Your task to perform on an android device: Go to Wikipedia Image 0: 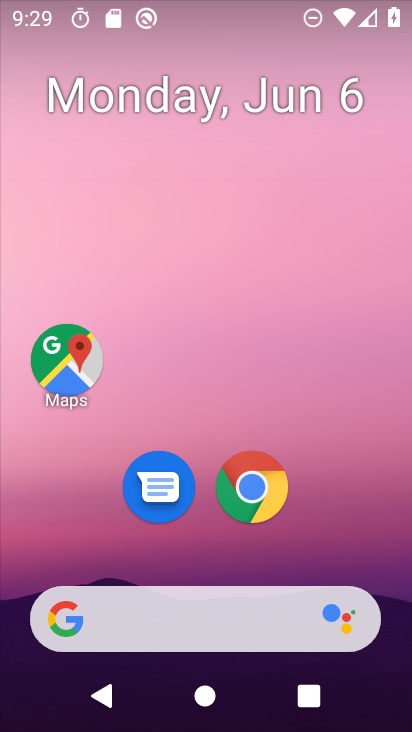
Step 0: drag from (390, 608) to (266, 49)
Your task to perform on an android device: Go to Wikipedia Image 1: 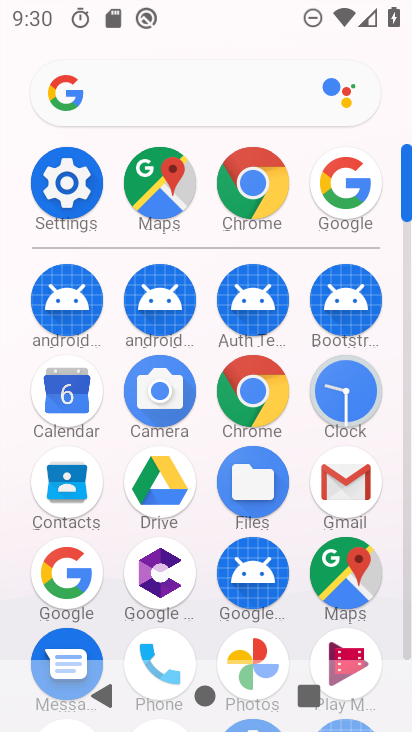
Step 1: click (53, 585)
Your task to perform on an android device: Go to Wikipedia Image 2: 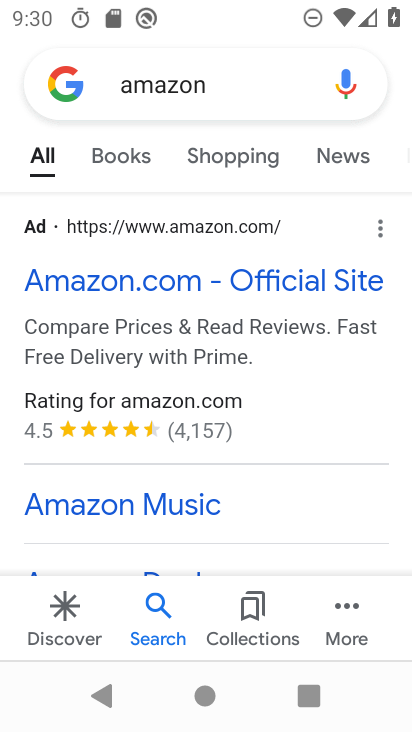
Step 2: press back button
Your task to perform on an android device: Go to Wikipedia Image 3: 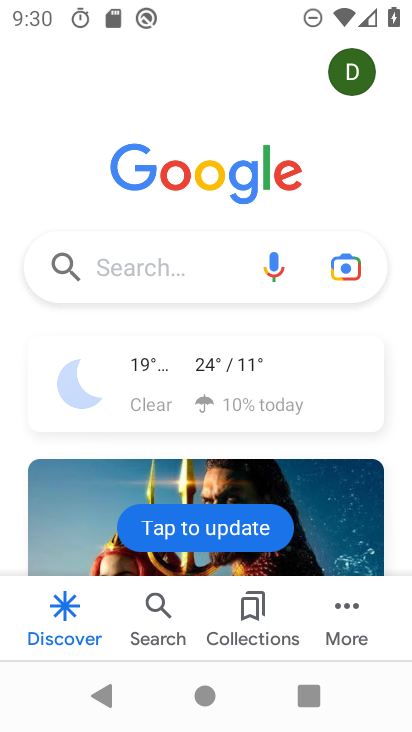
Step 3: click (133, 280)
Your task to perform on an android device: Go to Wikipedia Image 4: 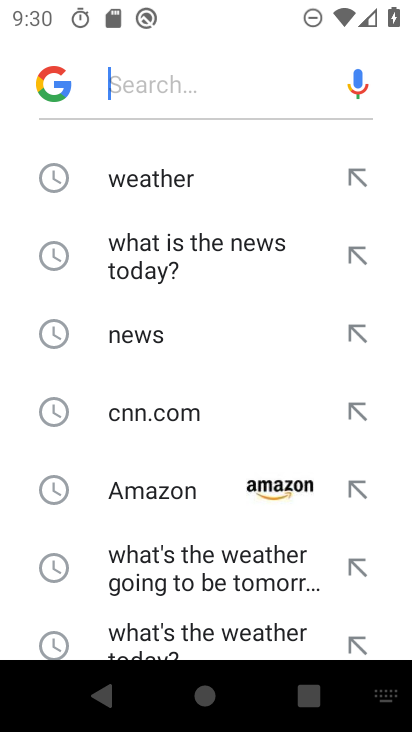
Step 4: drag from (141, 554) to (197, 106)
Your task to perform on an android device: Go to Wikipedia Image 5: 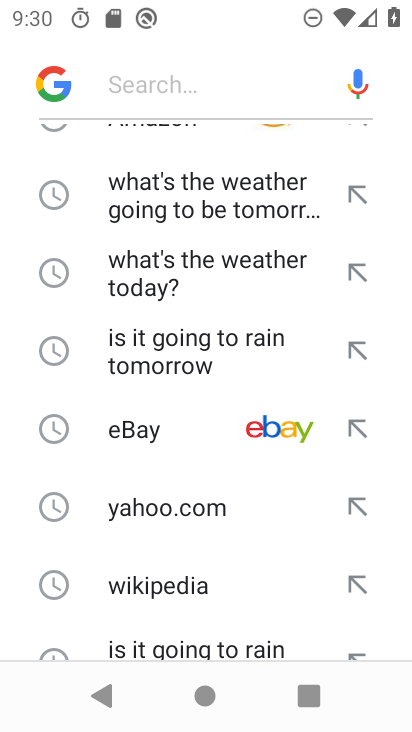
Step 5: click (137, 594)
Your task to perform on an android device: Go to Wikipedia Image 6: 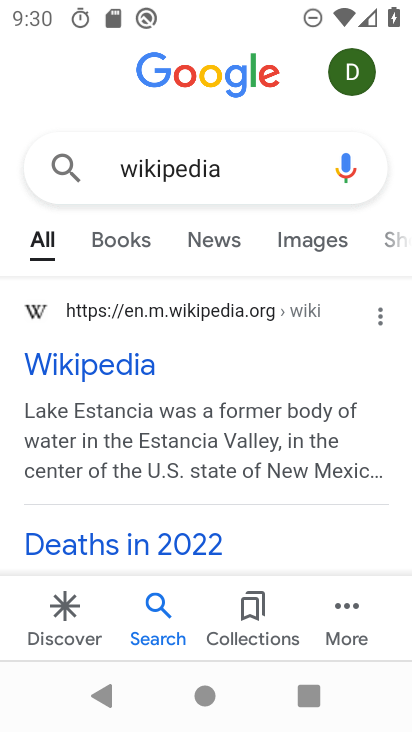
Step 6: task complete